Your task to perform on an android device: When is my next appointment? Image 0: 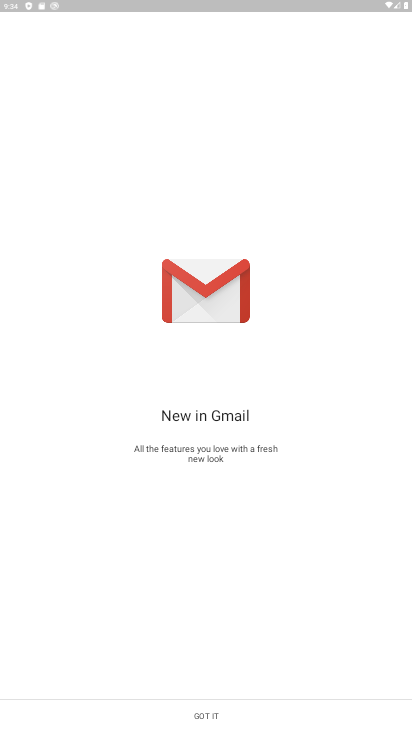
Step 0: press home button
Your task to perform on an android device: When is my next appointment? Image 1: 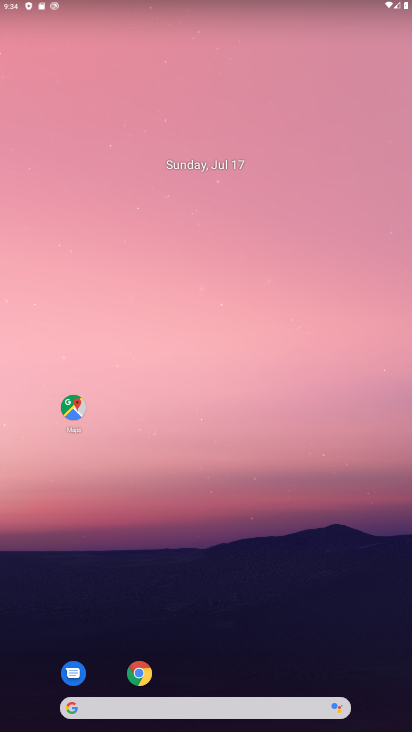
Step 1: drag from (174, 656) to (197, 109)
Your task to perform on an android device: When is my next appointment? Image 2: 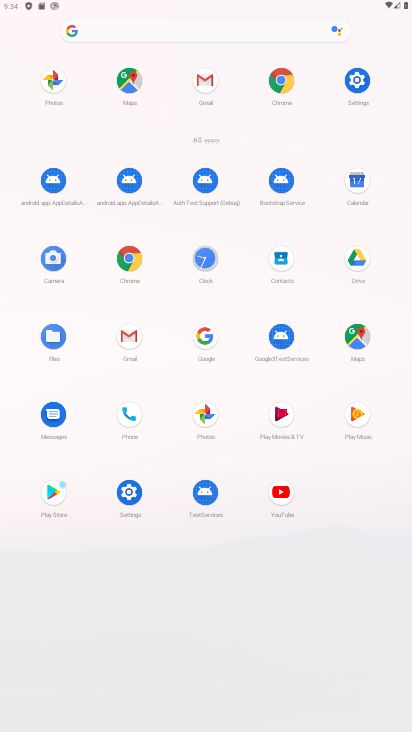
Step 2: click (352, 180)
Your task to perform on an android device: When is my next appointment? Image 3: 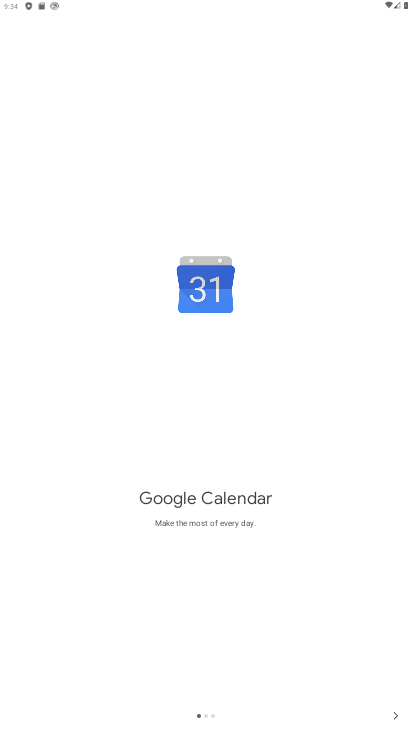
Step 3: click (384, 708)
Your task to perform on an android device: When is my next appointment? Image 4: 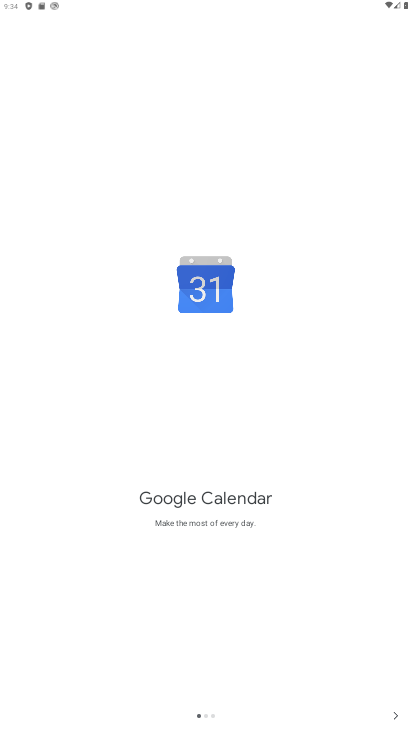
Step 4: click (392, 716)
Your task to perform on an android device: When is my next appointment? Image 5: 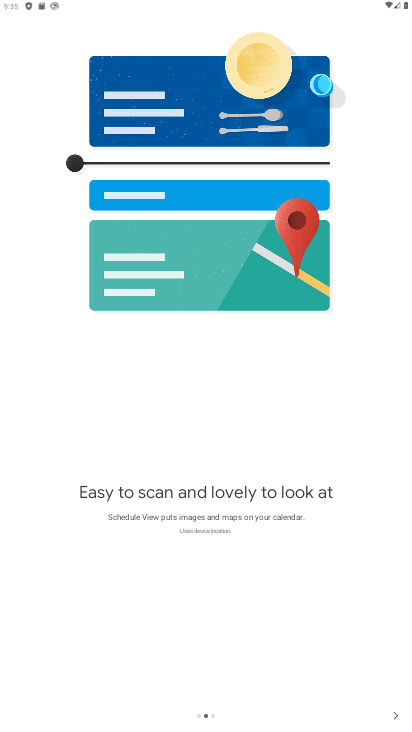
Step 5: click (392, 716)
Your task to perform on an android device: When is my next appointment? Image 6: 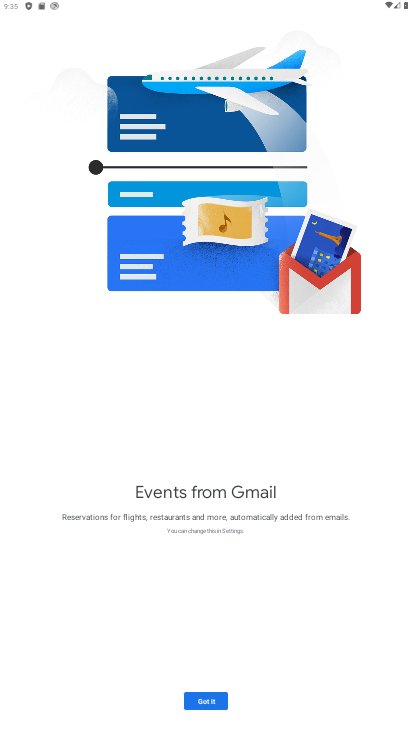
Step 6: click (222, 694)
Your task to perform on an android device: When is my next appointment? Image 7: 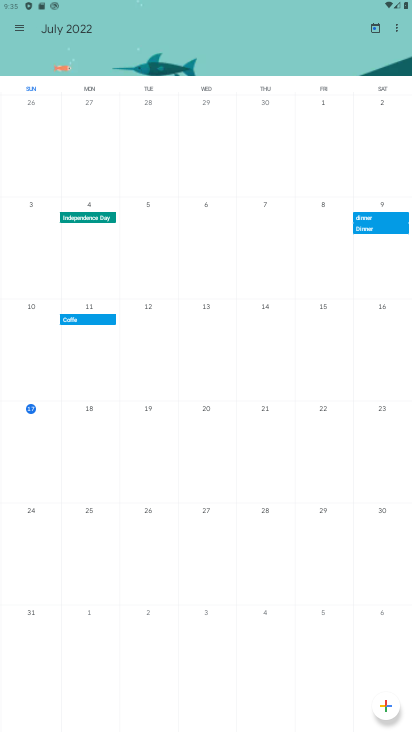
Step 7: click (147, 411)
Your task to perform on an android device: When is my next appointment? Image 8: 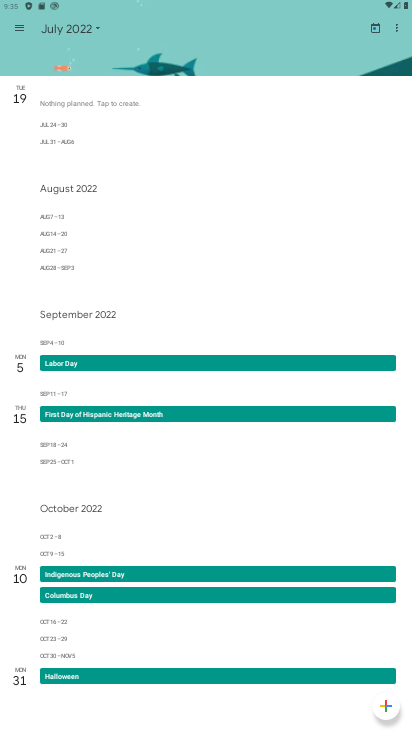
Step 8: task complete